Your task to perform on an android device: Search for the best gaming mouses on Amazon. Image 0: 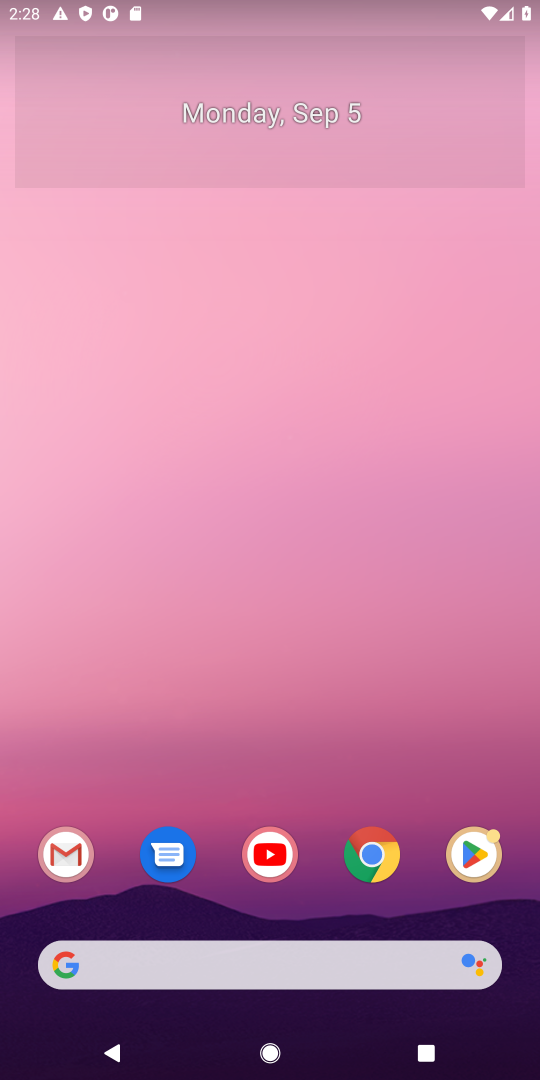
Step 0: click (374, 964)
Your task to perform on an android device: Search for the best gaming mouses on Amazon. Image 1: 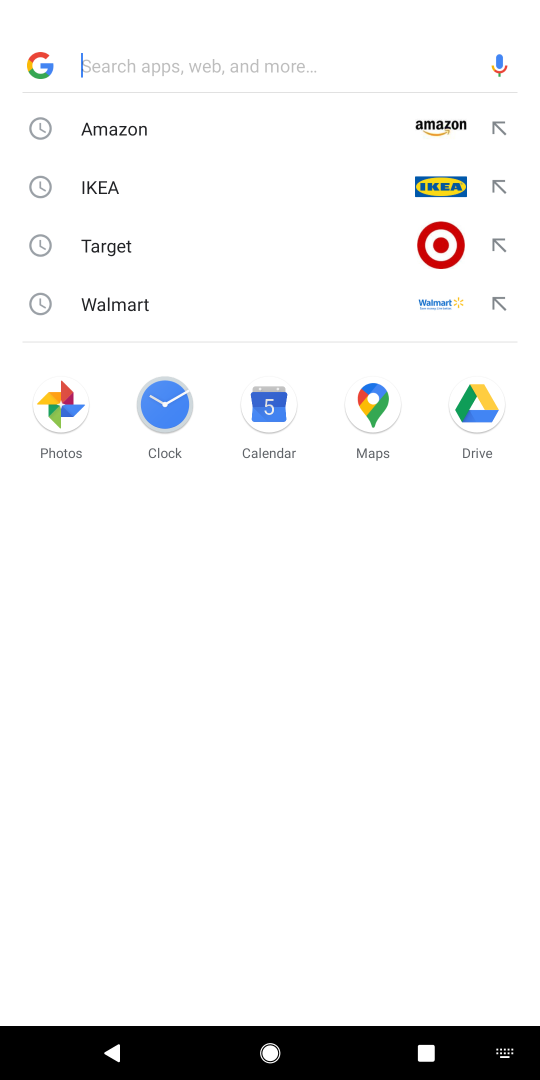
Step 1: press enter
Your task to perform on an android device: Search for the best gaming mouses on Amazon. Image 2: 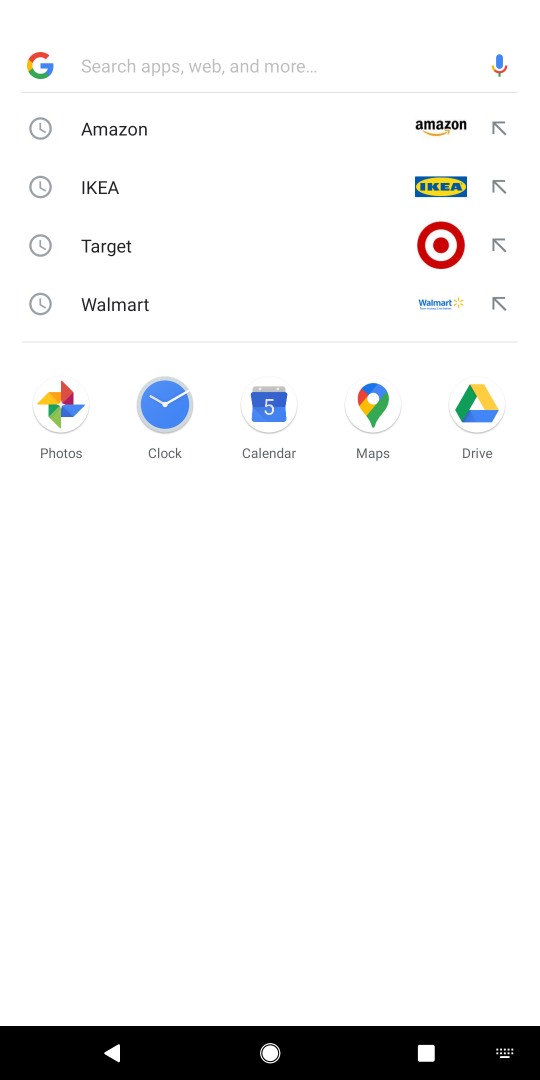
Step 2: type "amazon"
Your task to perform on an android device: Search for the best gaming mouses on Amazon. Image 3: 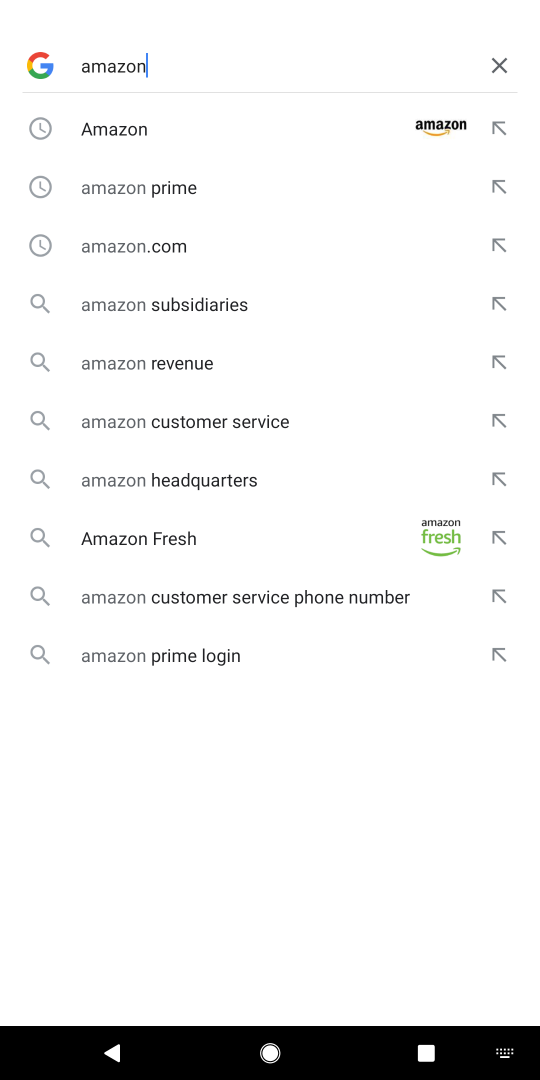
Step 3: click (160, 119)
Your task to perform on an android device: Search for the best gaming mouses on Amazon. Image 4: 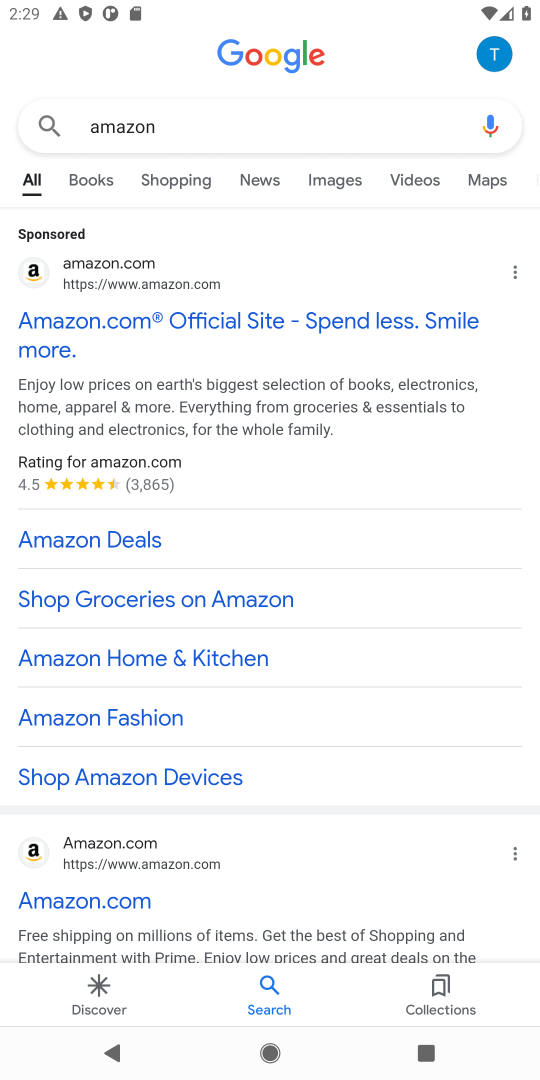
Step 4: click (247, 318)
Your task to perform on an android device: Search for the best gaming mouses on Amazon. Image 5: 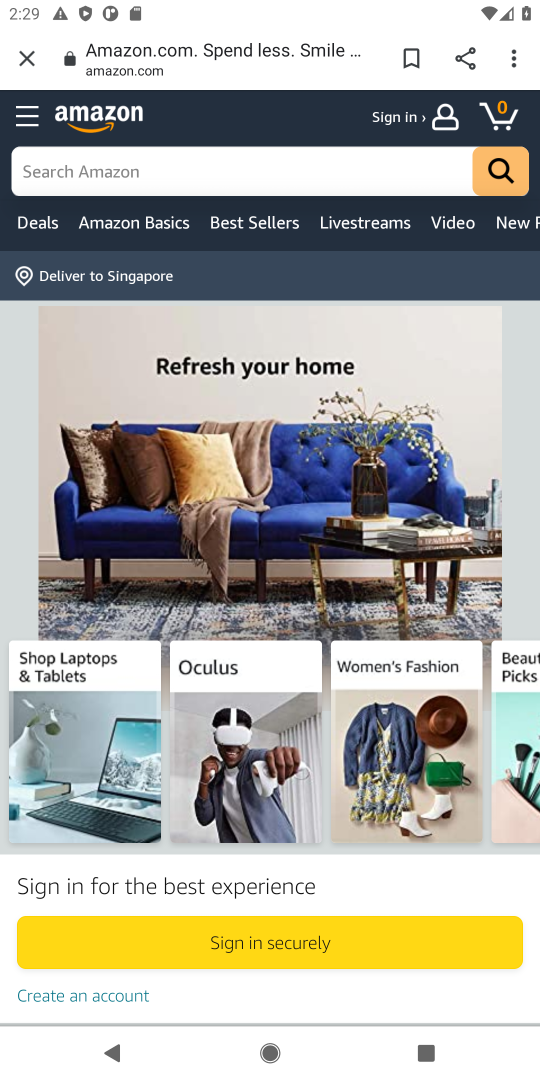
Step 5: click (57, 166)
Your task to perform on an android device: Search for the best gaming mouses on Amazon. Image 6: 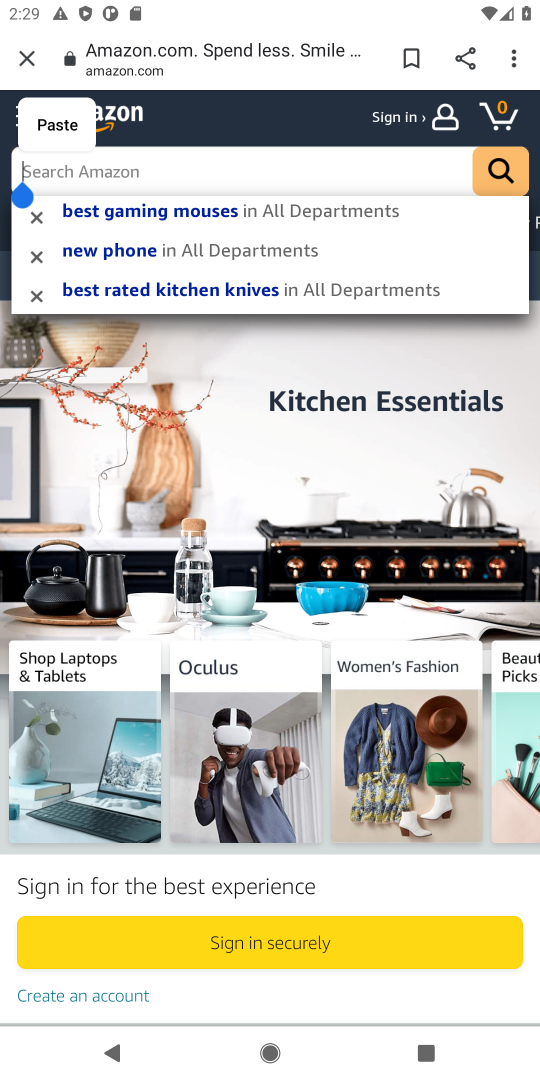
Step 6: click (167, 205)
Your task to perform on an android device: Search for the best gaming mouses on Amazon. Image 7: 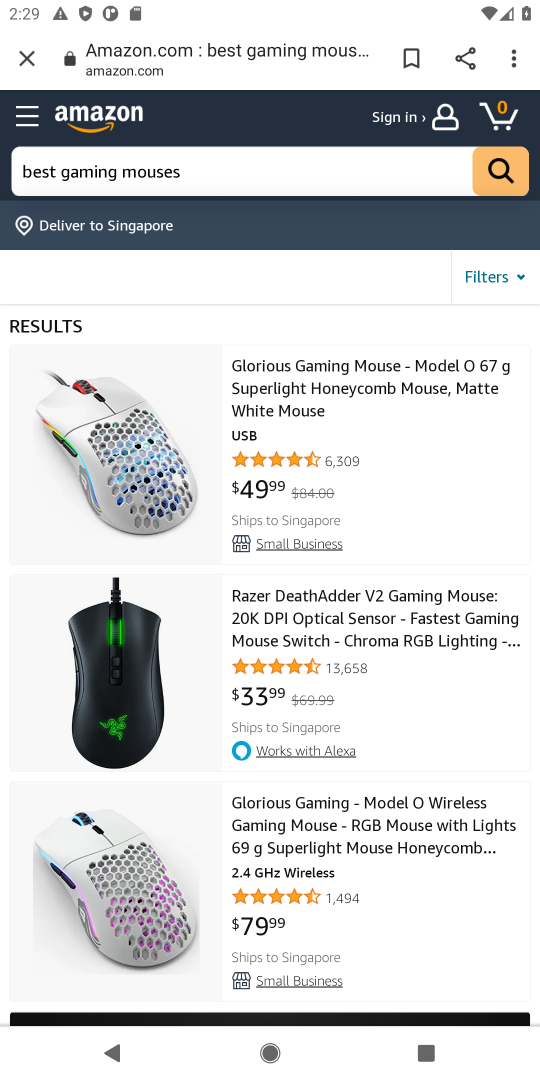
Step 7: task complete